Your task to perform on an android device: toggle sleep mode Image 0: 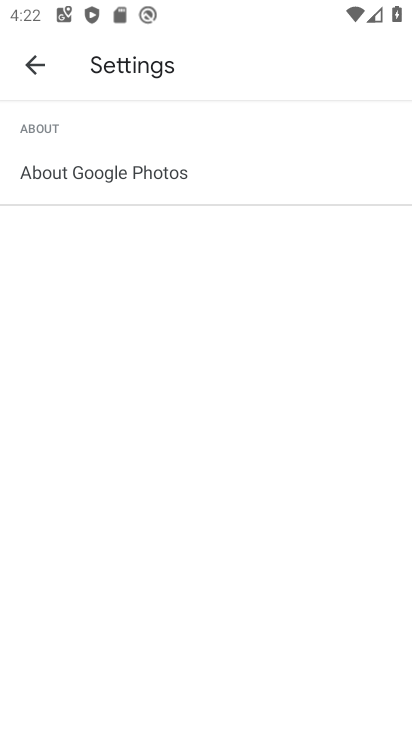
Step 0: press home button
Your task to perform on an android device: toggle sleep mode Image 1: 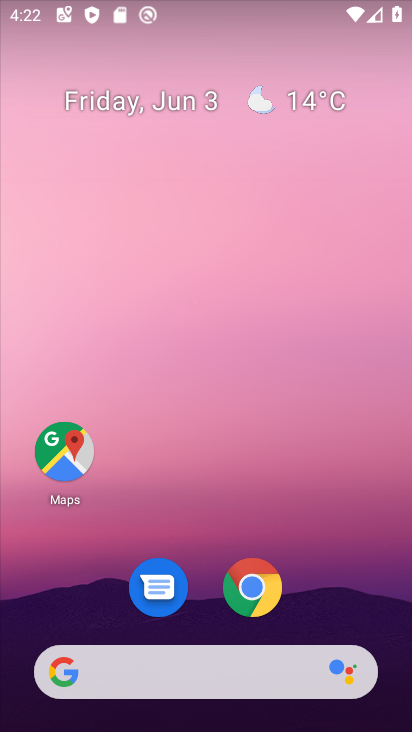
Step 1: drag from (163, 647) to (155, 263)
Your task to perform on an android device: toggle sleep mode Image 2: 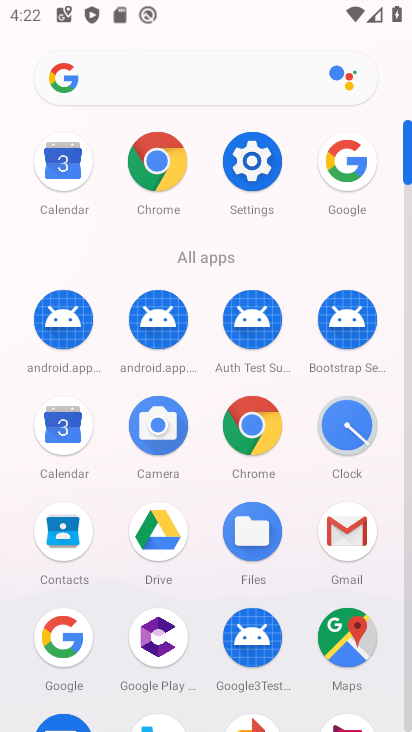
Step 2: click (252, 168)
Your task to perform on an android device: toggle sleep mode Image 3: 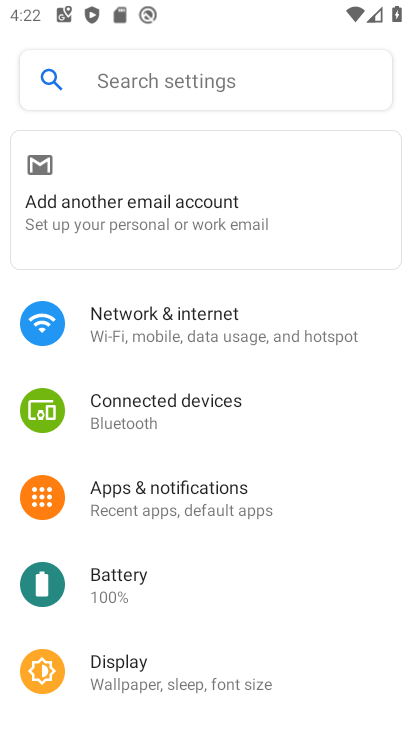
Step 3: drag from (191, 609) to (154, 255)
Your task to perform on an android device: toggle sleep mode Image 4: 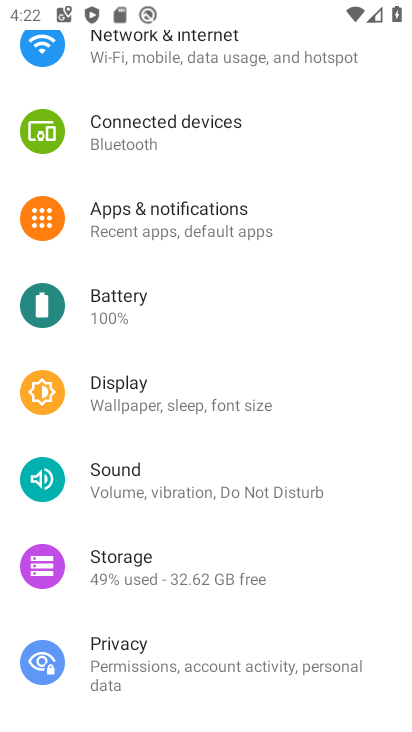
Step 4: click (125, 402)
Your task to perform on an android device: toggle sleep mode Image 5: 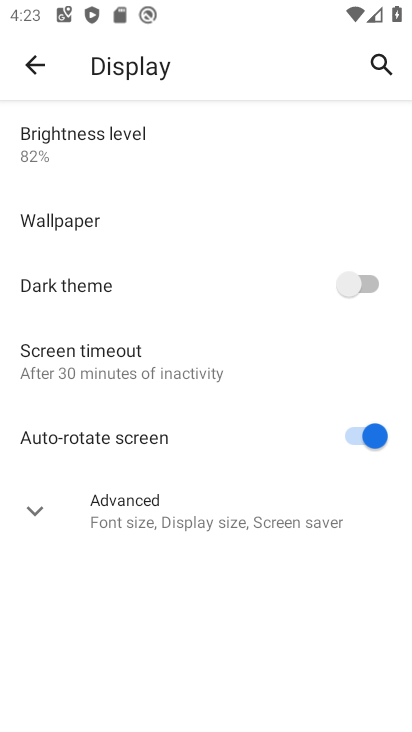
Step 5: click (85, 363)
Your task to perform on an android device: toggle sleep mode Image 6: 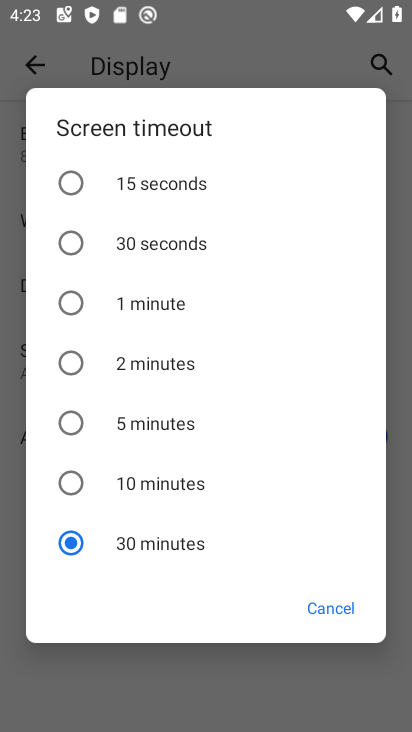
Step 6: click (143, 190)
Your task to perform on an android device: toggle sleep mode Image 7: 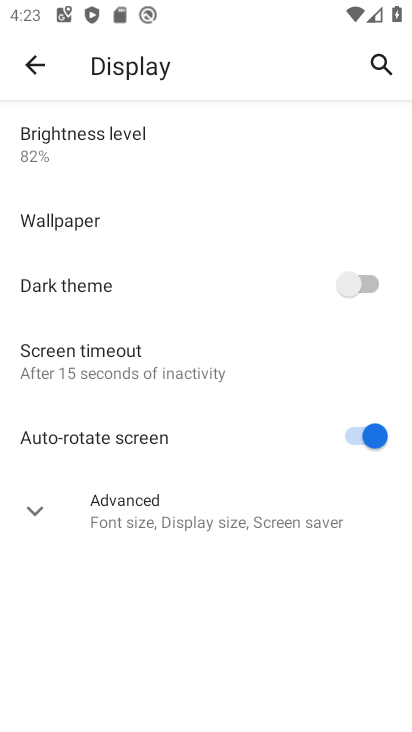
Step 7: click (185, 506)
Your task to perform on an android device: toggle sleep mode Image 8: 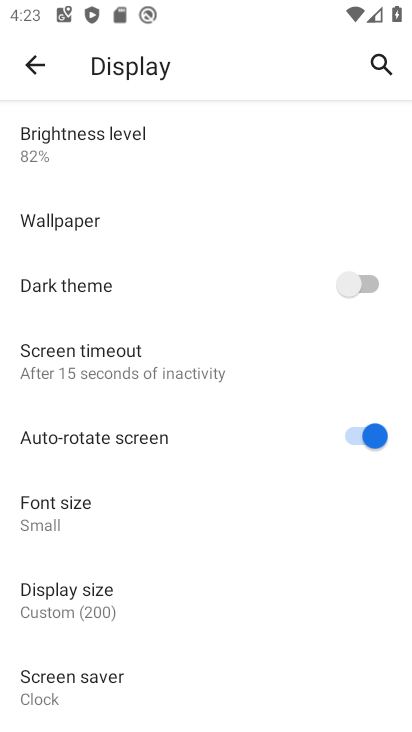
Step 8: task complete